Your task to perform on an android device: open app "ColorNote Notepad Notes" (install if not already installed) and enter user name: "unbridled@gmail.com" and password: "regularly" Image 0: 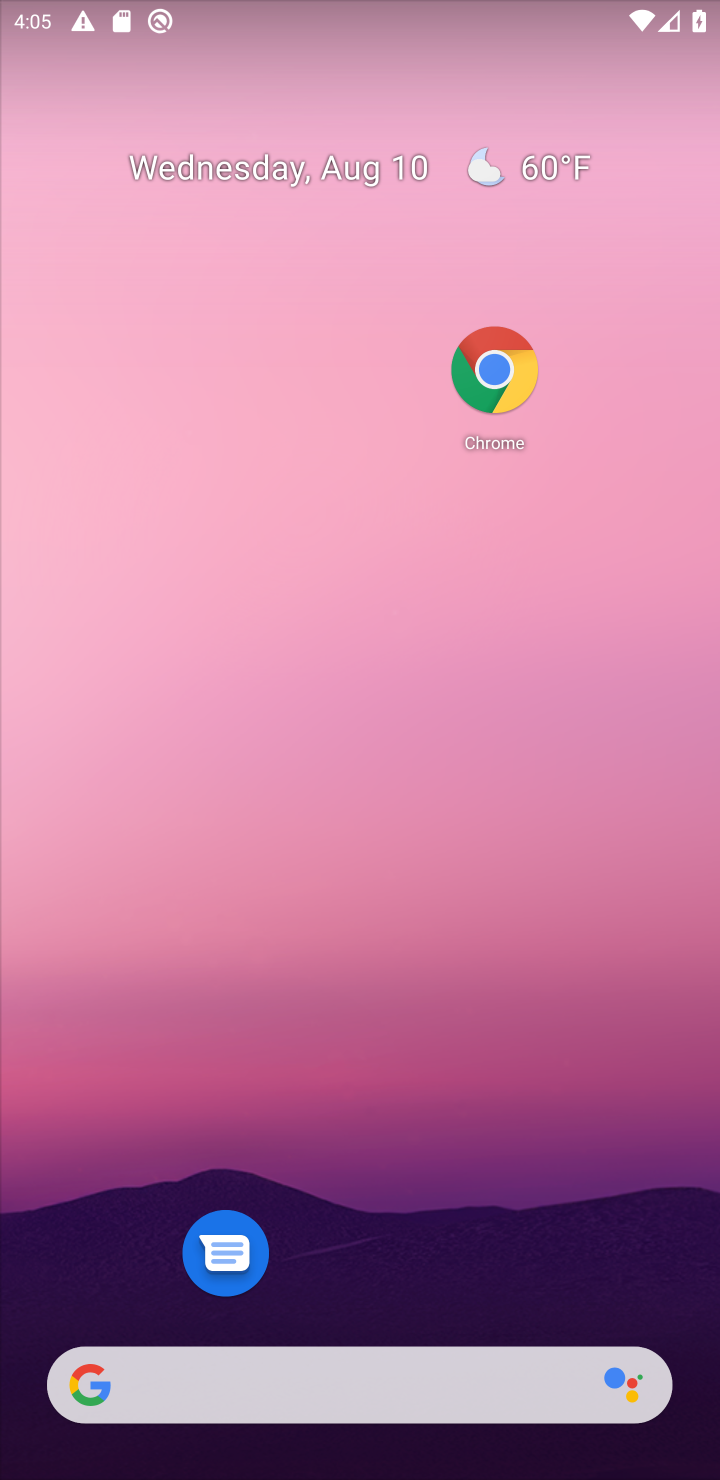
Step 0: drag from (428, 1257) to (420, 573)
Your task to perform on an android device: open app "ColorNote Notepad Notes" (install if not already installed) and enter user name: "unbridled@gmail.com" and password: "regularly" Image 1: 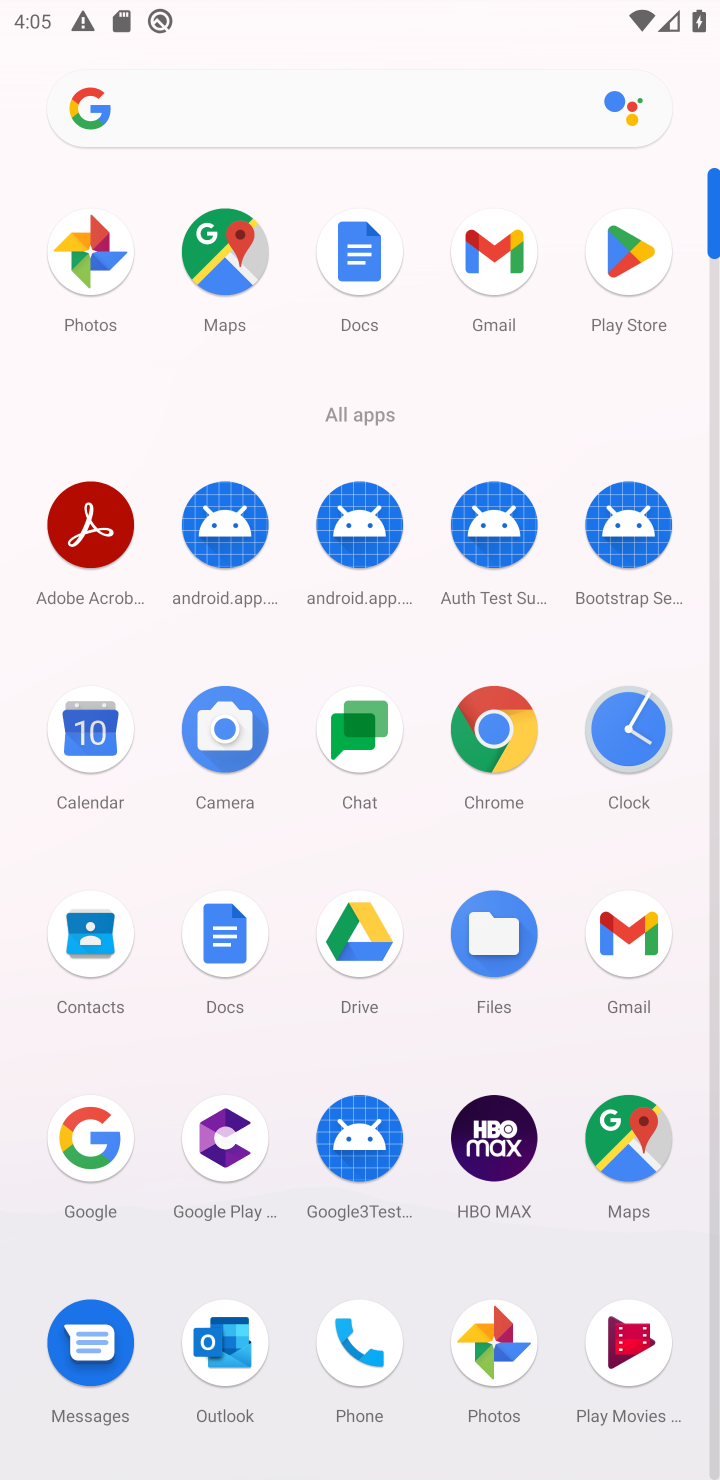
Step 1: click (612, 256)
Your task to perform on an android device: open app "ColorNote Notepad Notes" (install if not already installed) and enter user name: "unbridled@gmail.com" and password: "regularly" Image 2: 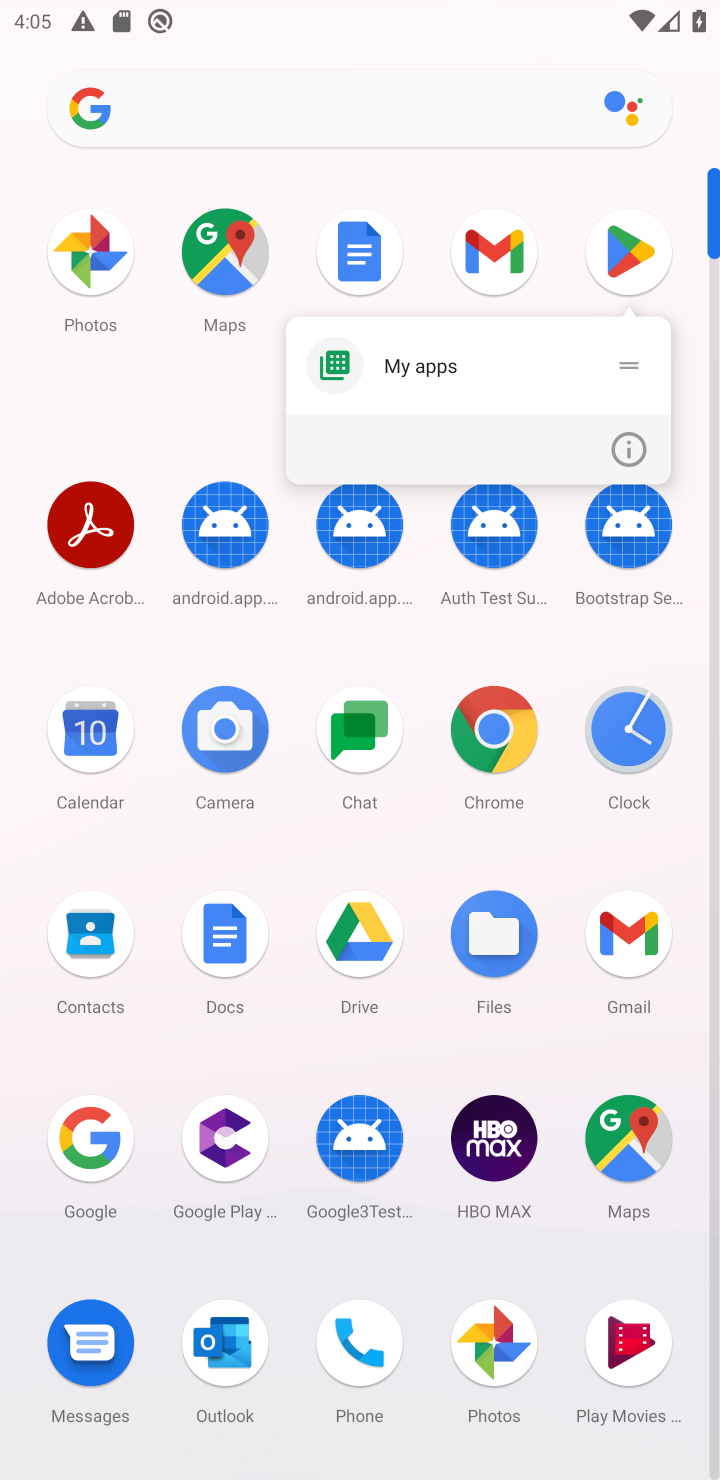
Step 2: click (612, 256)
Your task to perform on an android device: open app "ColorNote Notepad Notes" (install if not already installed) and enter user name: "unbridled@gmail.com" and password: "regularly" Image 3: 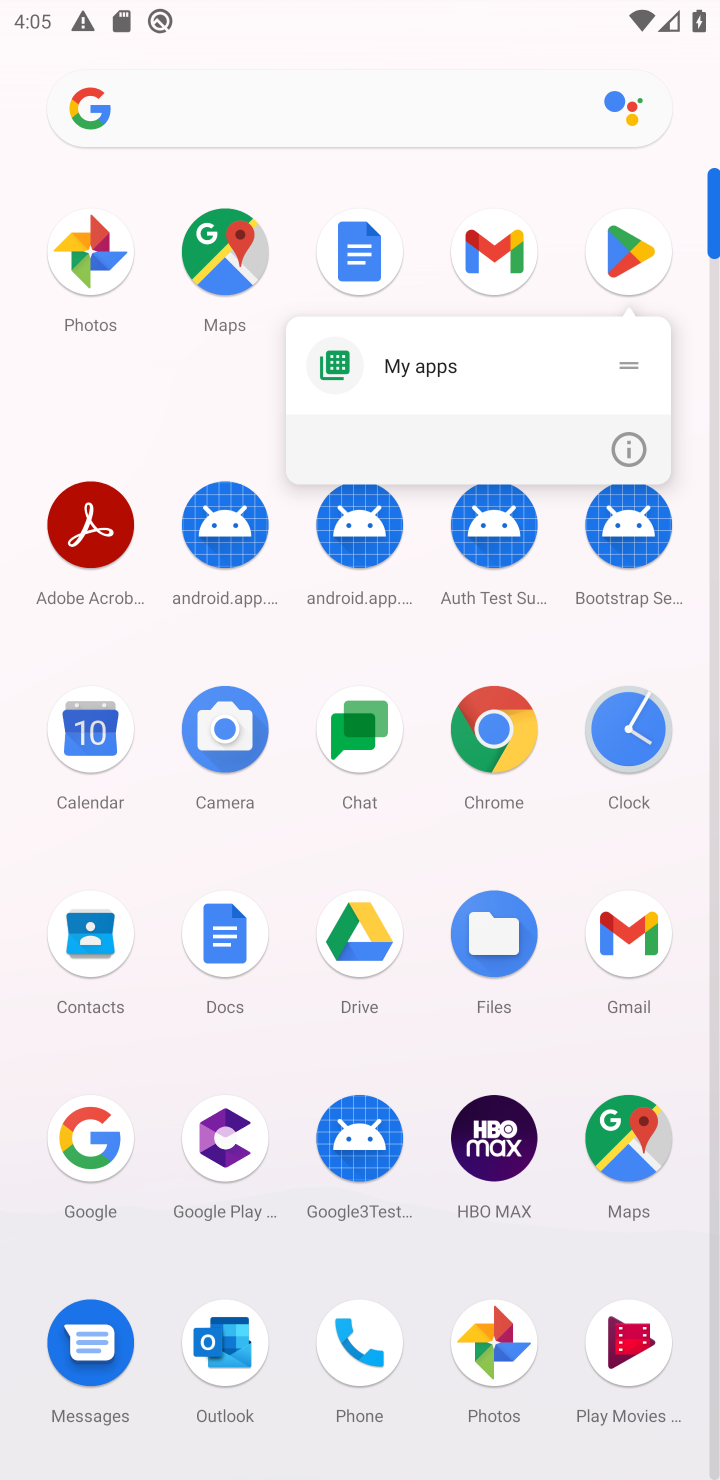
Step 3: click (612, 256)
Your task to perform on an android device: open app "ColorNote Notepad Notes" (install if not already installed) and enter user name: "unbridled@gmail.com" and password: "regularly" Image 4: 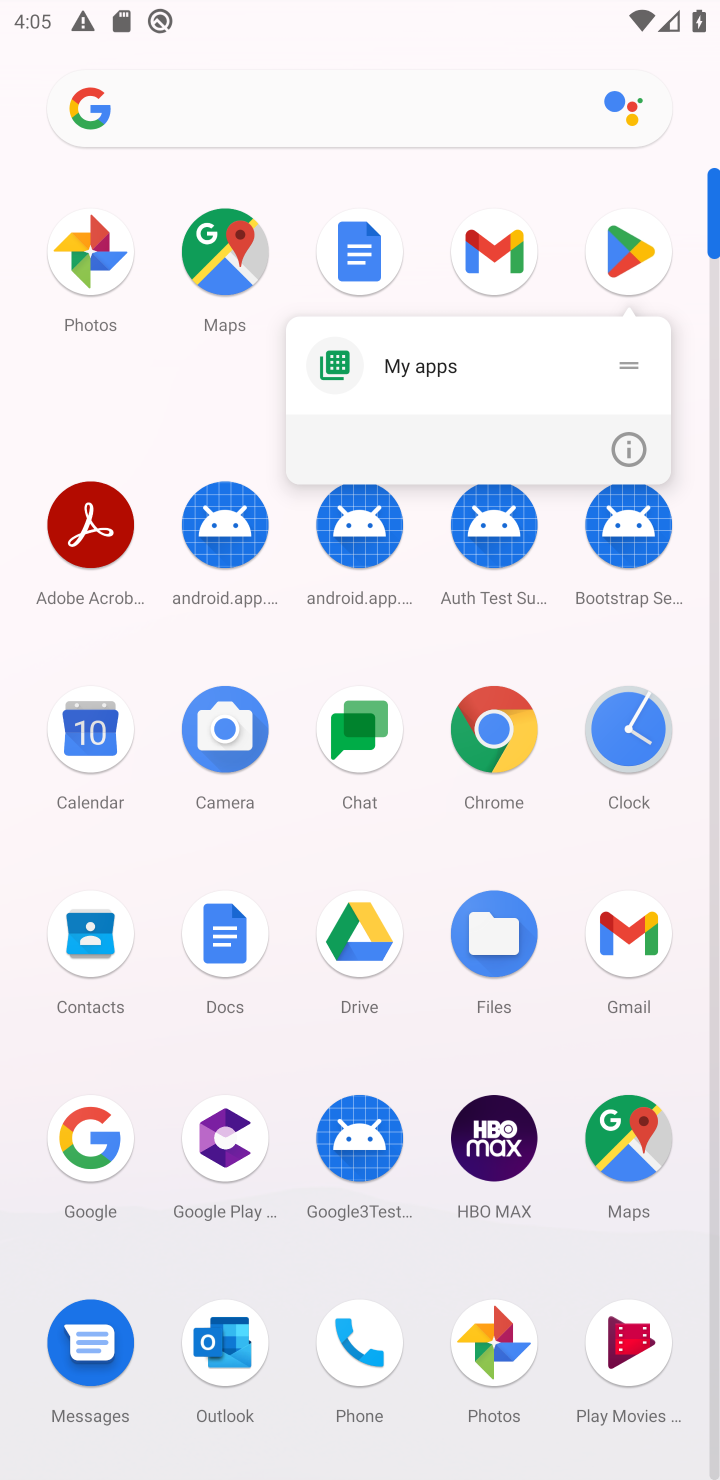
Step 4: click (635, 274)
Your task to perform on an android device: open app "ColorNote Notepad Notes" (install if not already installed) and enter user name: "unbridled@gmail.com" and password: "regularly" Image 5: 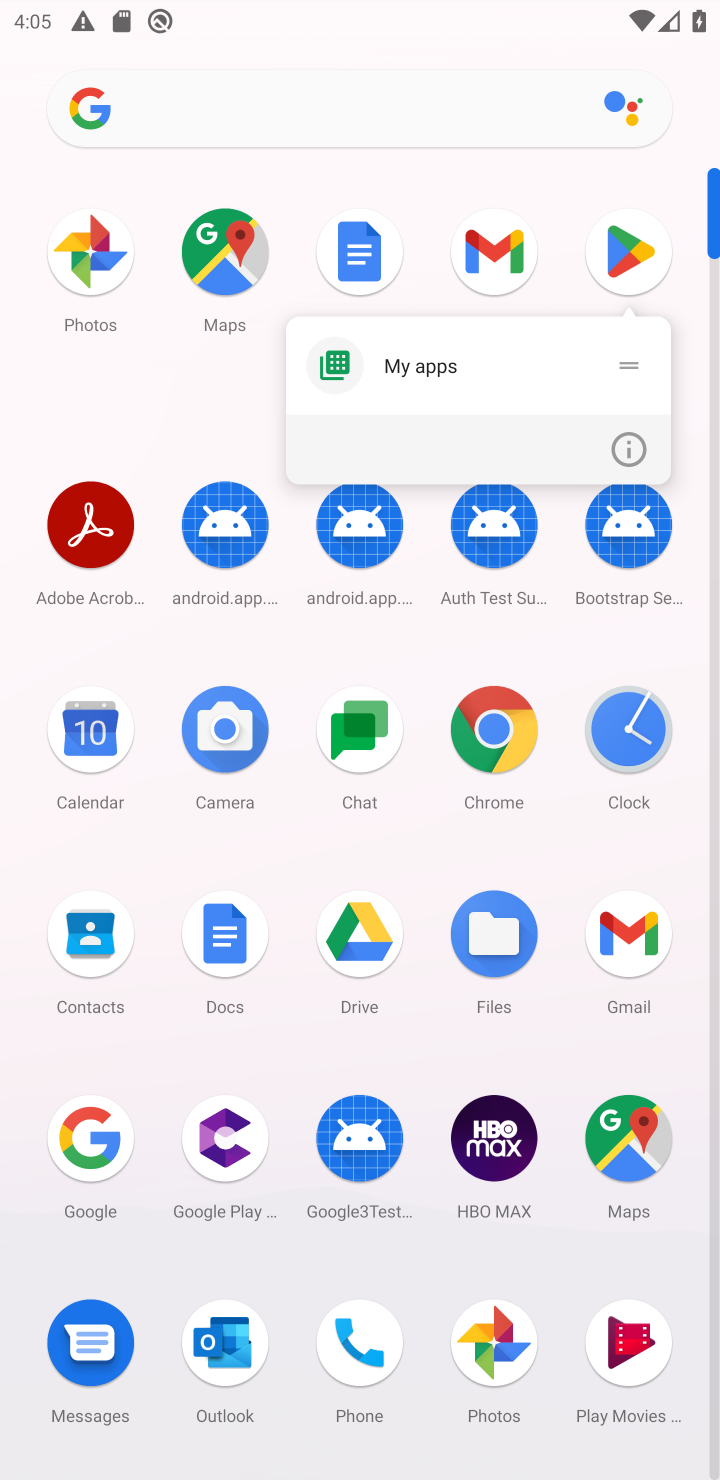
Step 5: click (635, 219)
Your task to perform on an android device: open app "ColorNote Notepad Notes" (install if not already installed) and enter user name: "unbridled@gmail.com" and password: "regularly" Image 6: 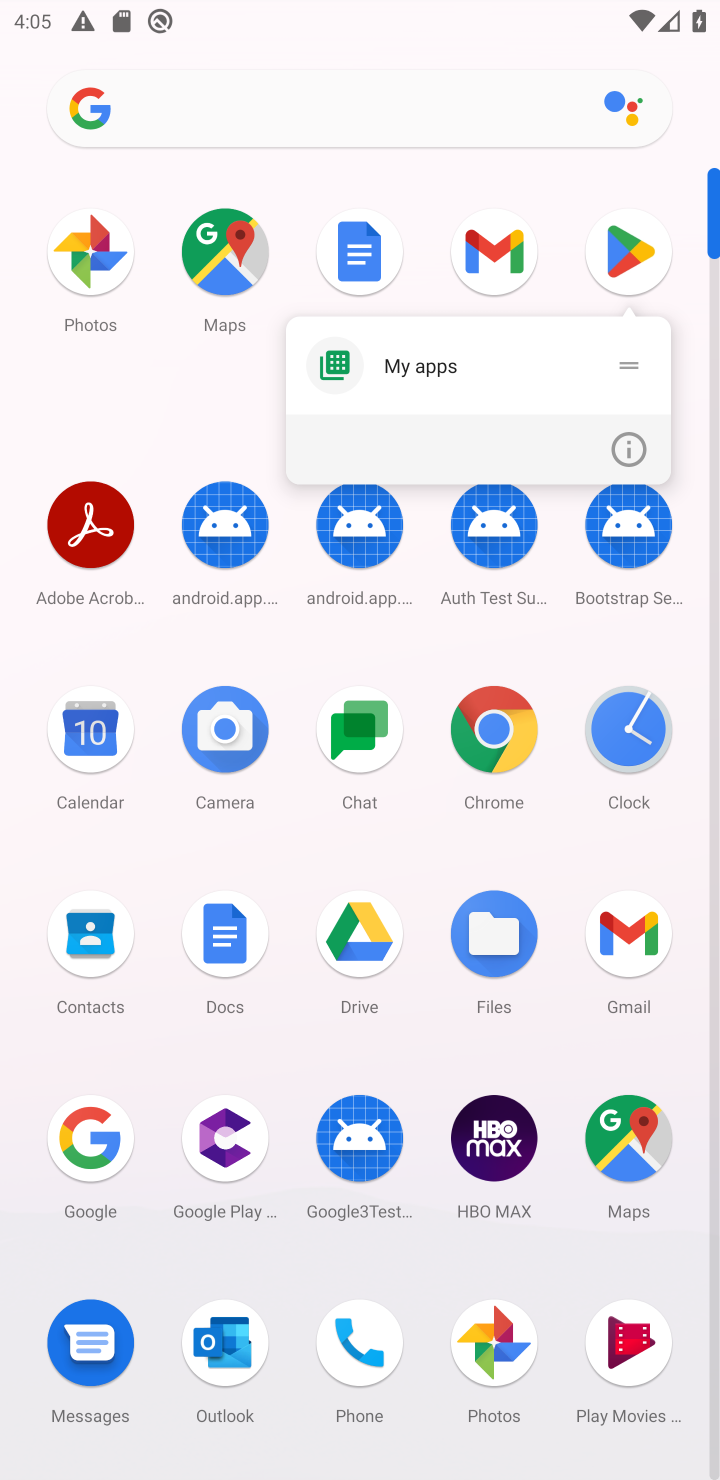
Step 6: click (631, 222)
Your task to perform on an android device: open app "ColorNote Notepad Notes" (install if not already installed) and enter user name: "unbridled@gmail.com" and password: "regularly" Image 7: 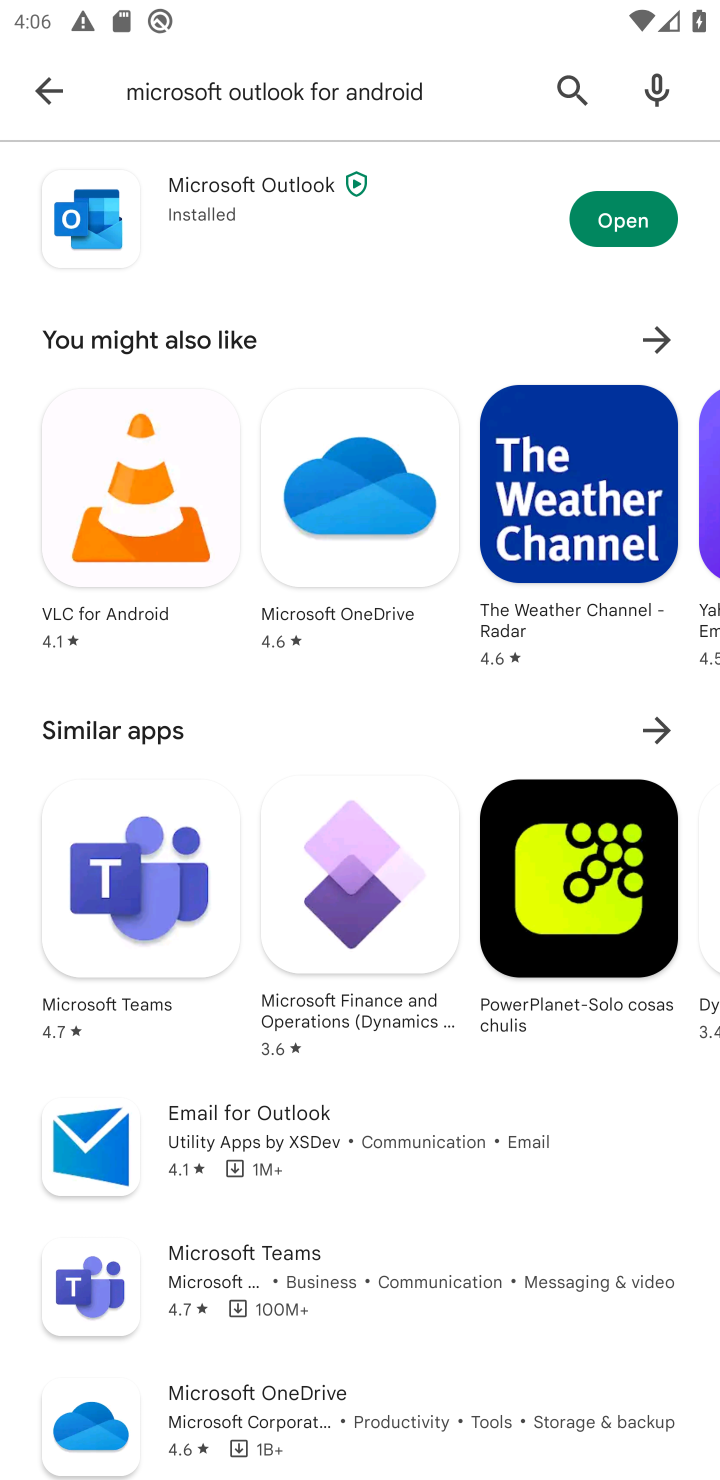
Step 7: click (59, 82)
Your task to perform on an android device: open app "ColorNote Notepad Notes" (install if not already installed) and enter user name: "unbridled@gmail.com" and password: "regularly" Image 8: 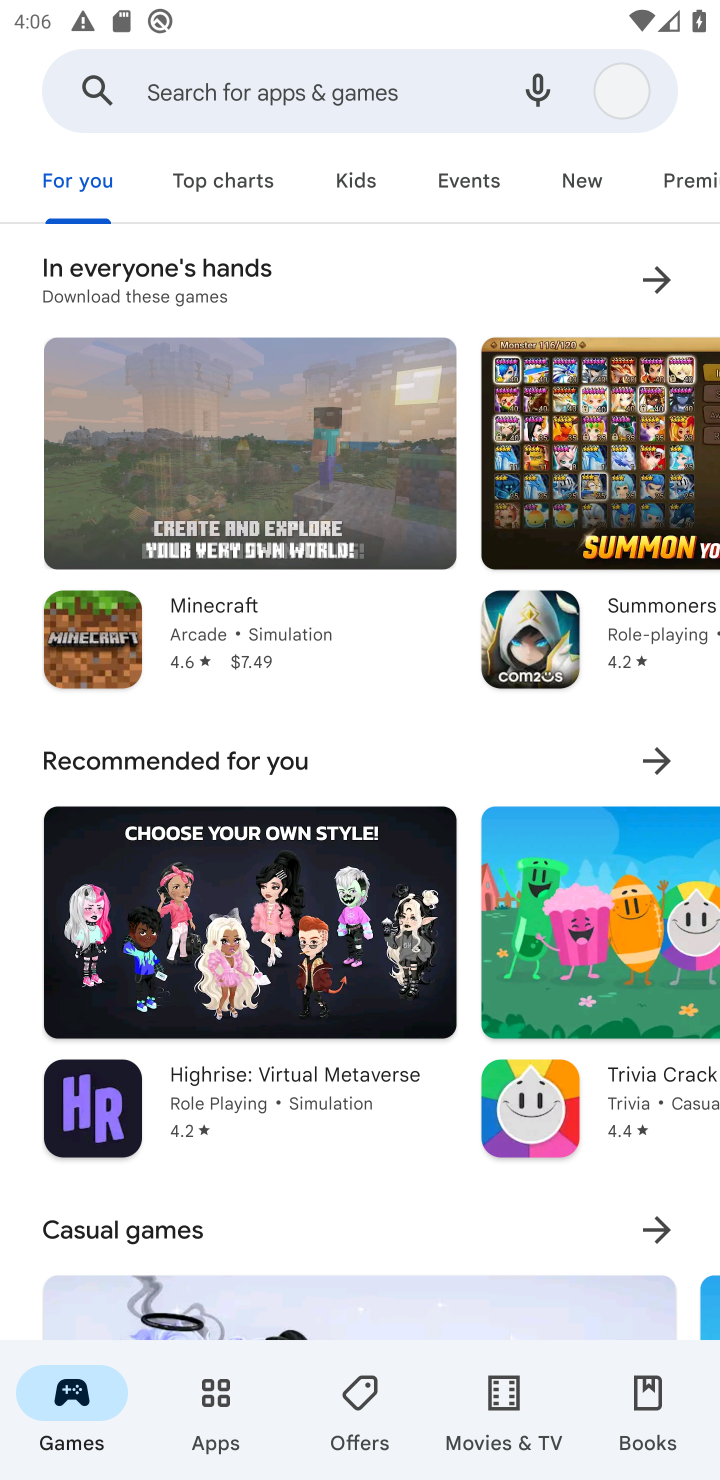
Step 8: click (242, 76)
Your task to perform on an android device: open app "ColorNote Notepad Notes" (install if not already installed) and enter user name: "unbridled@gmail.com" and password: "regularly" Image 9: 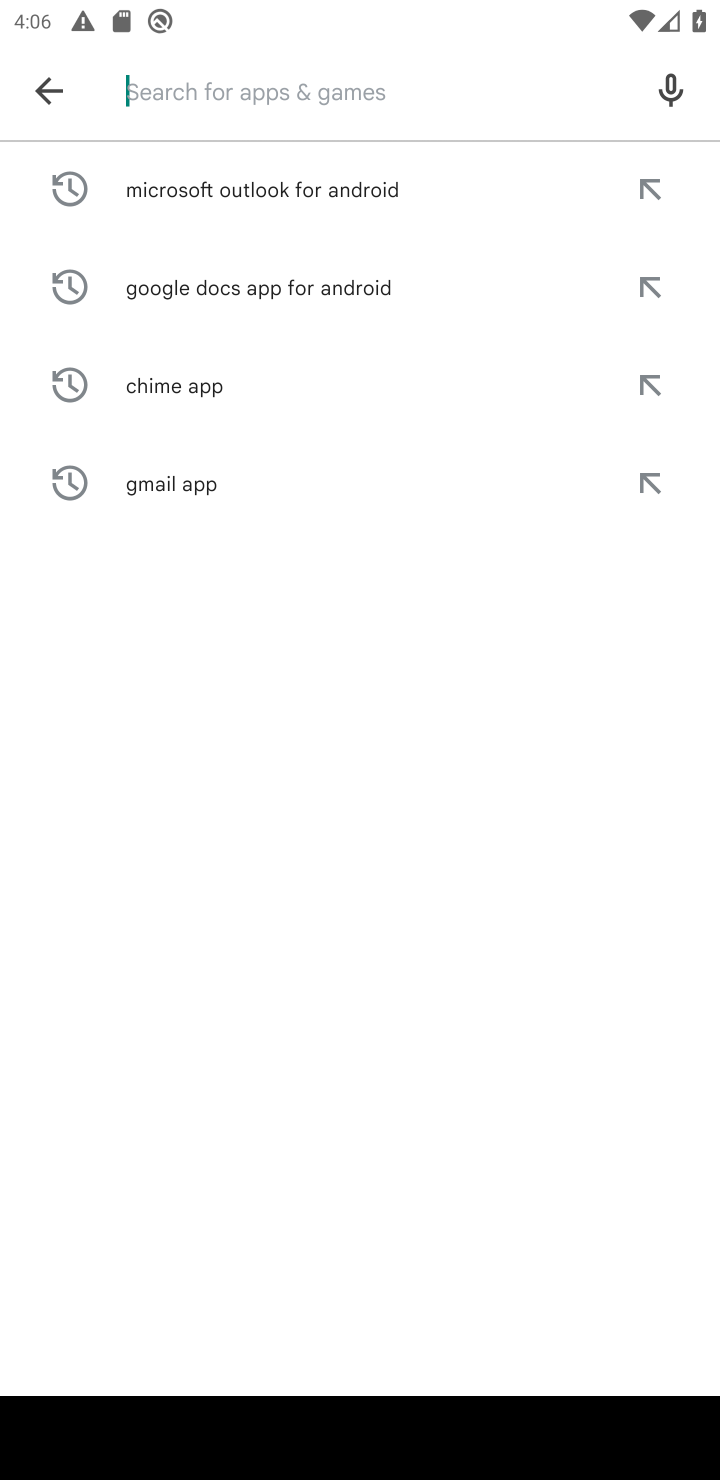
Step 9: type "colornote "
Your task to perform on an android device: open app "ColorNote Notepad Notes" (install if not already installed) and enter user name: "unbridled@gmail.com" and password: "regularly" Image 10: 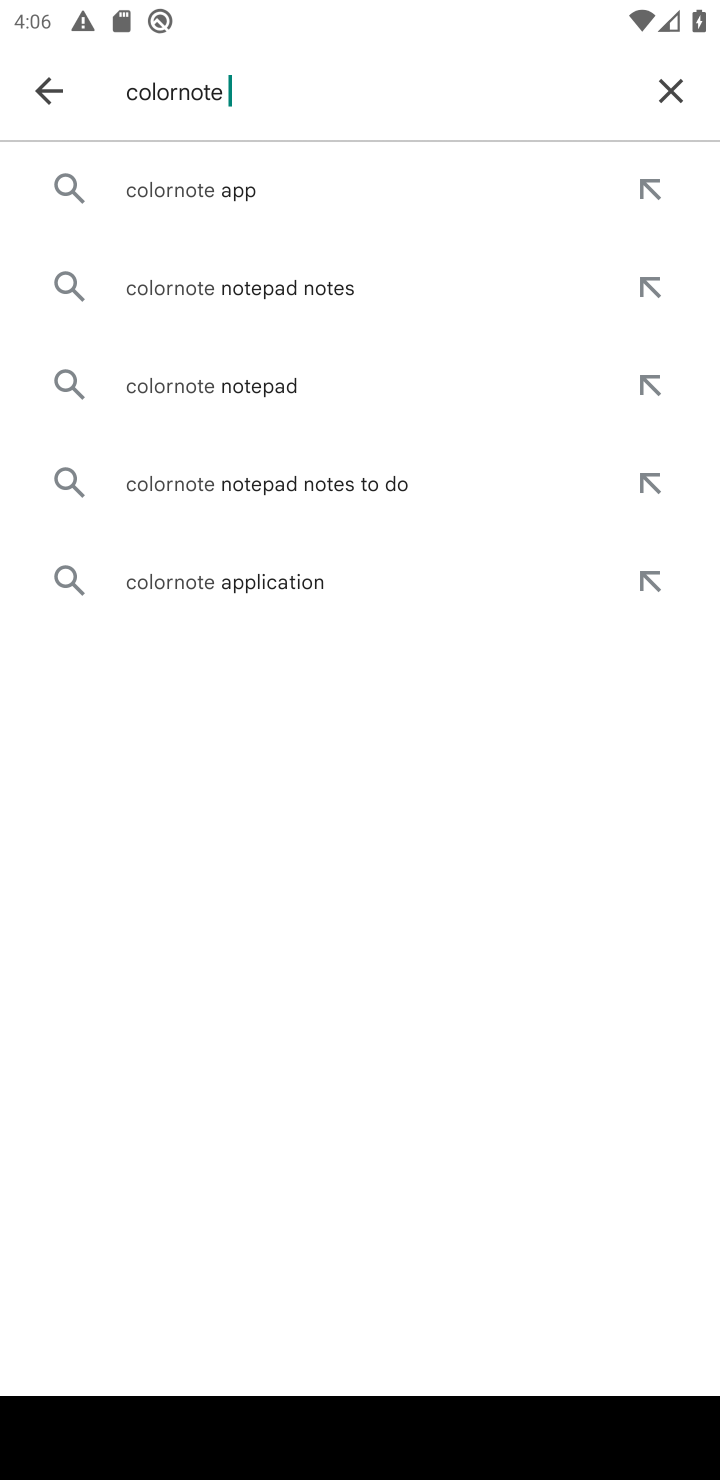
Step 10: click (245, 182)
Your task to perform on an android device: open app "ColorNote Notepad Notes" (install if not already installed) and enter user name: "unbridled@gmail.com" and password: "regularly" Image 11: 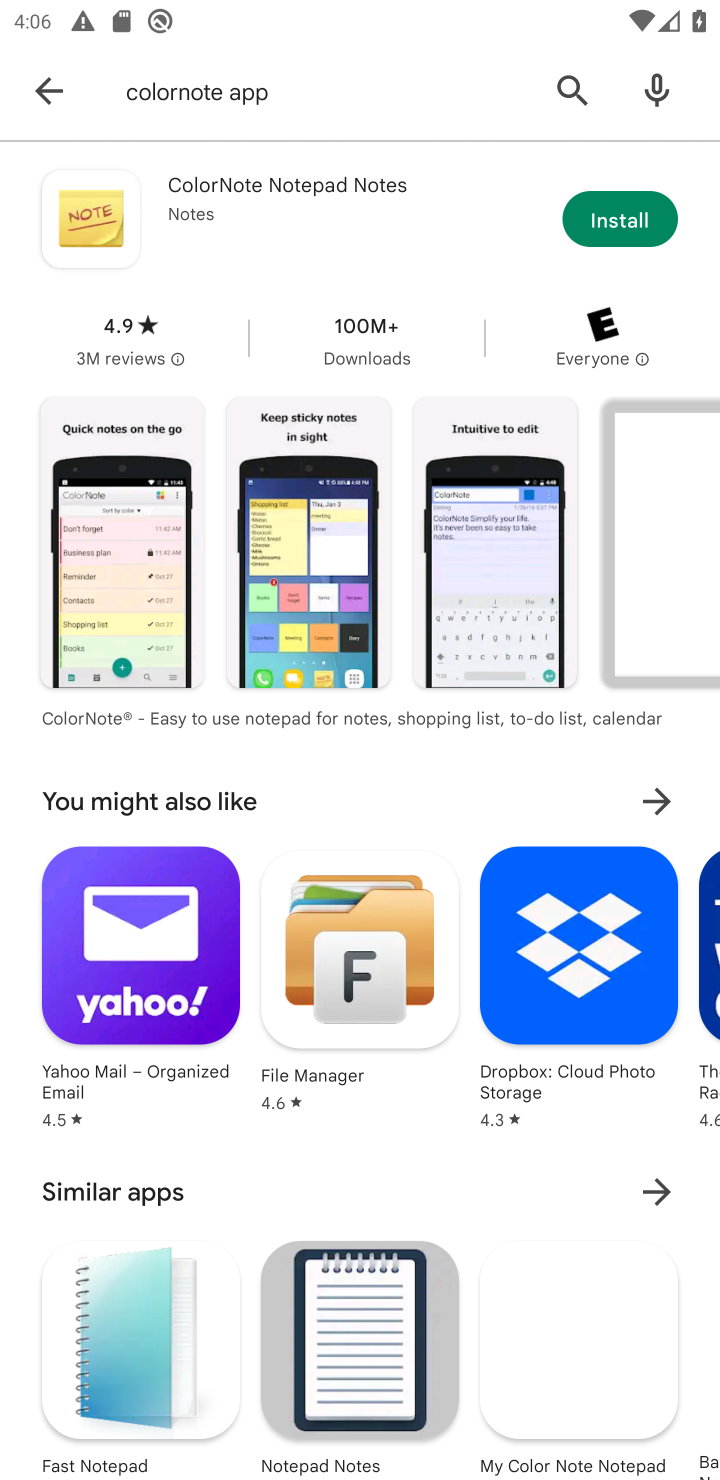
Step 11: click (596, 193)
Your task to perform on an android device: open app "ColorNote Notepad Notes" (install if not already installed) and enter user name: "unbridled@gmail.com" and password: "regularly" Image 12: 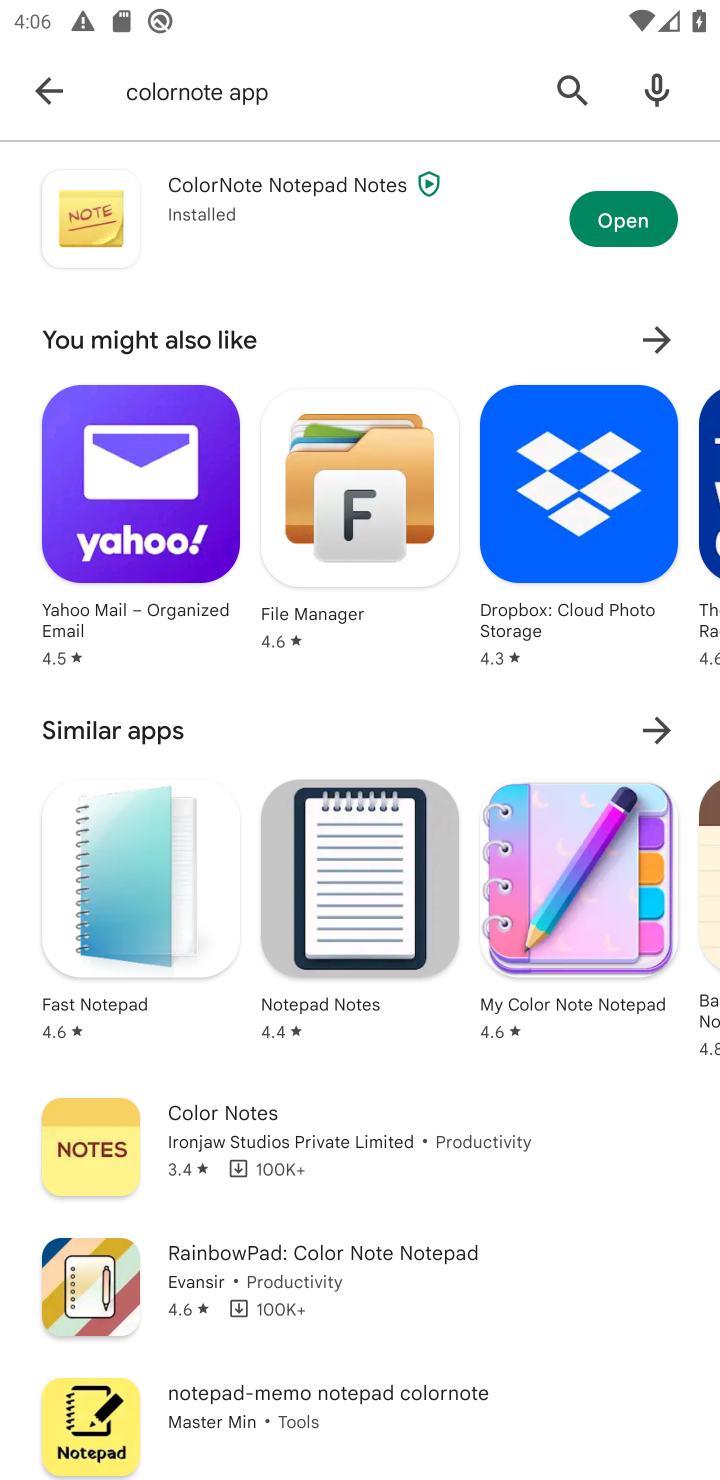
Step 12: click (618, 228)
Your task to perform on an android device: open app "ColorNote Notepad Notes" (install if not already installed) and enter user name: "unbridled@gmail.com" and password: "regularly" Image 13: 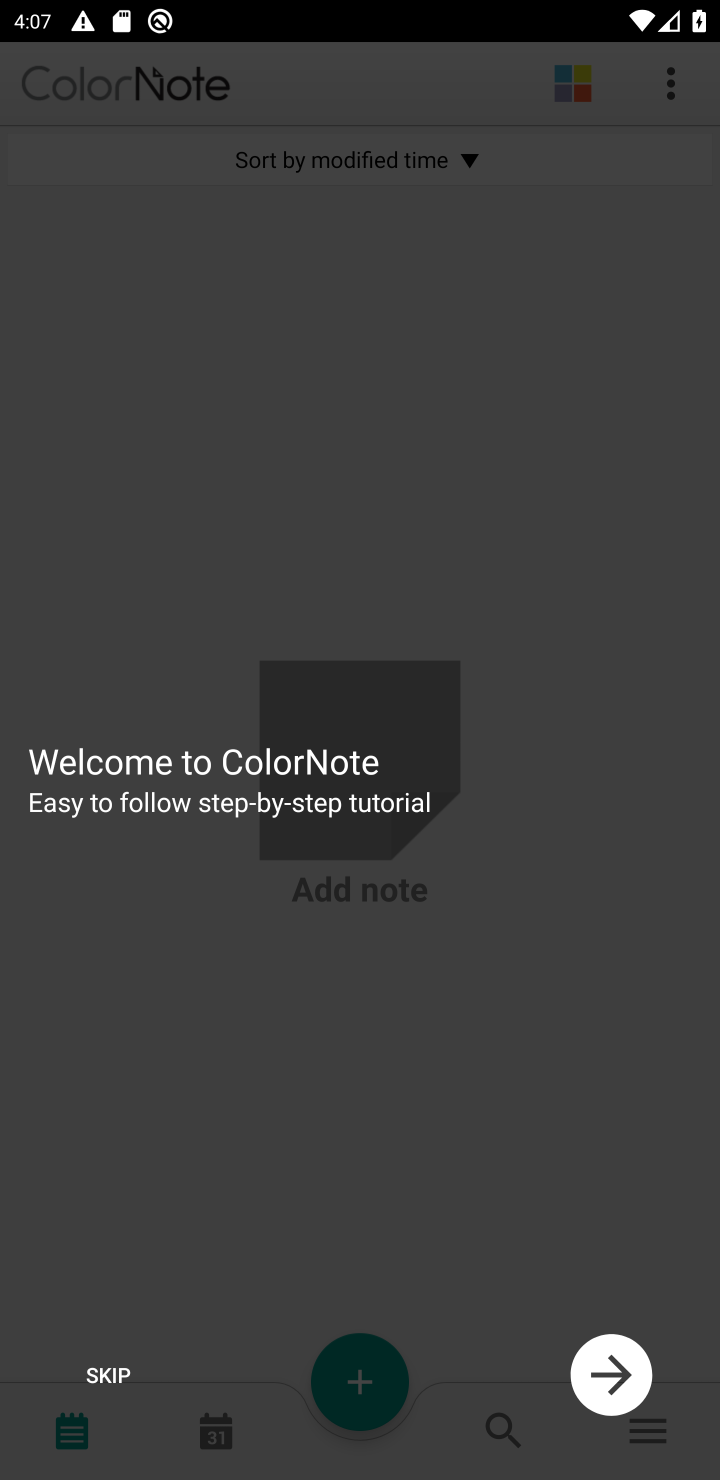
Step 13: task complete